Your task to perform on an android device: open device folders in google photos Image 0: 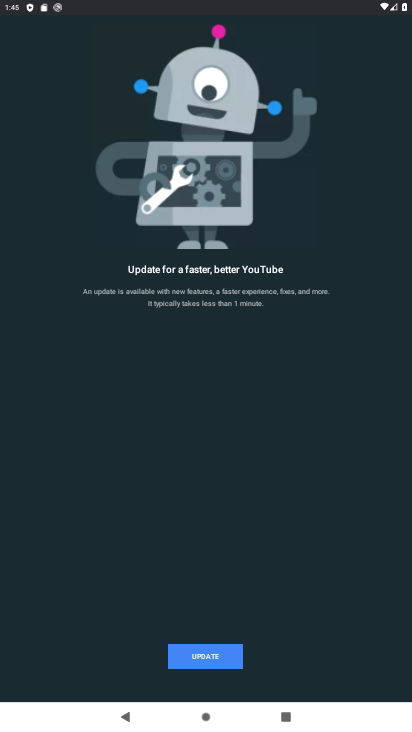
Step 0: press home button
Your task to perform on an android device: open device folders in google photos Image 1: 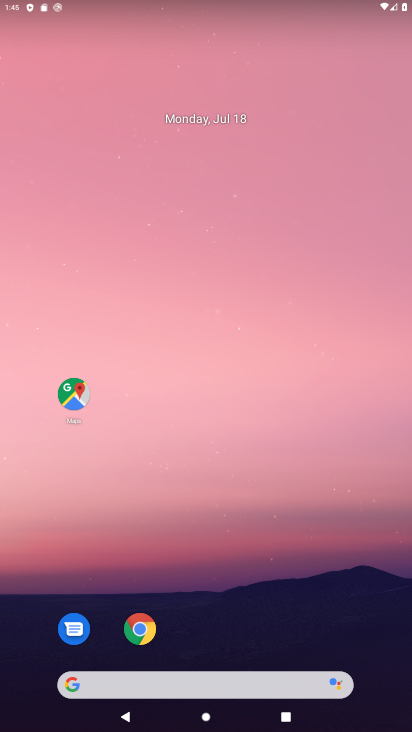
Step 1: drag from (235, 313) to (247, 221)
Your task to perform on an android device: open device folders in google photos Image 2: 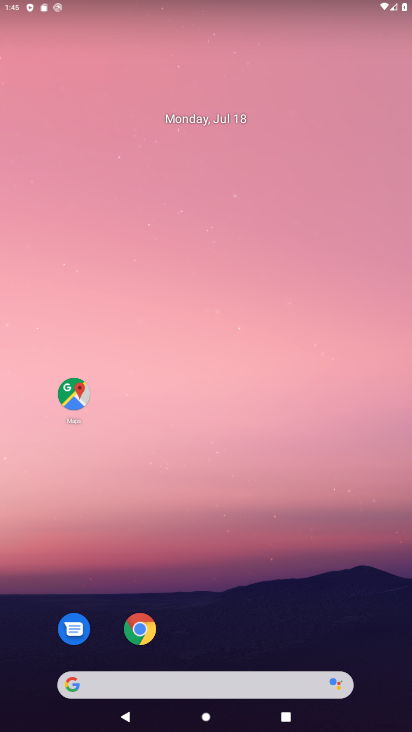
Step 2: drag from (207, 629) to (226, 199)
Your task to perform on an android device: open device folders in google photos Image 3: 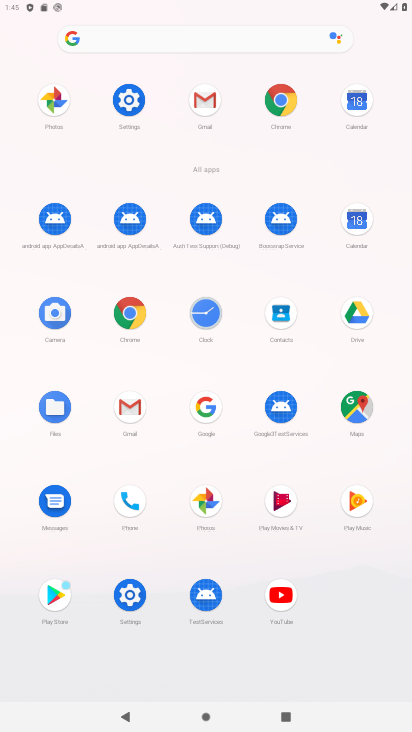
Step 3: click (205, 513)
Your task to perform on an android device: open device folders in google photos Image 4: 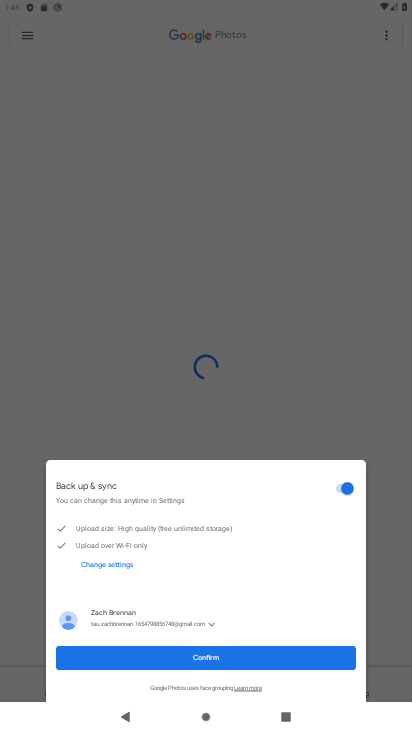
Step 4: click (200, 644)
Your task to perform on an android device: open device folders in google photos Image 5: 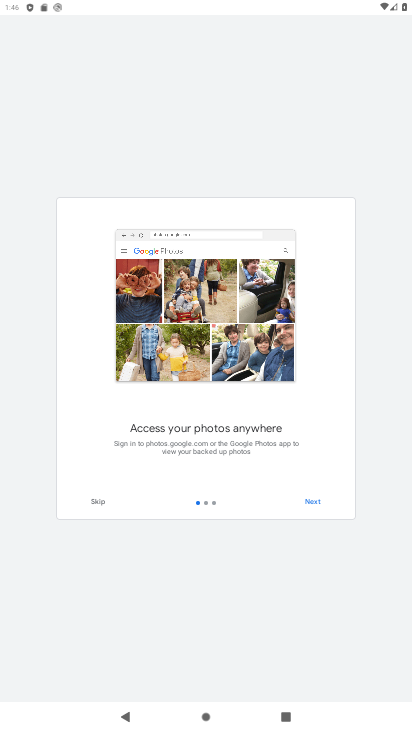
Step 5: click (306, 497)
Your task to perform on an android device: open device folders in google photos Image 6: 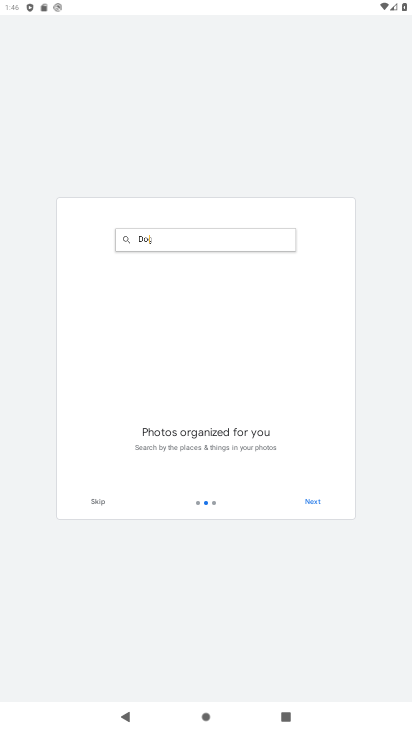
Step 6: click (306, 497)
Your task to perform on an android device: open device folders in google photos Image 7: 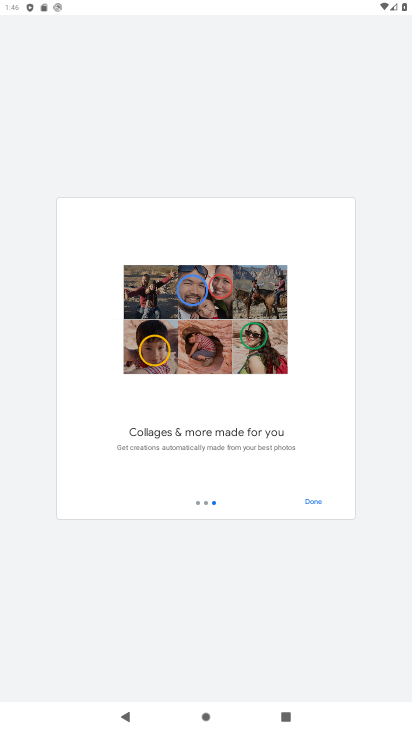
Step 7: click (316, 507)
Your task to perform on an android device: open device folders in google photos Image 8: 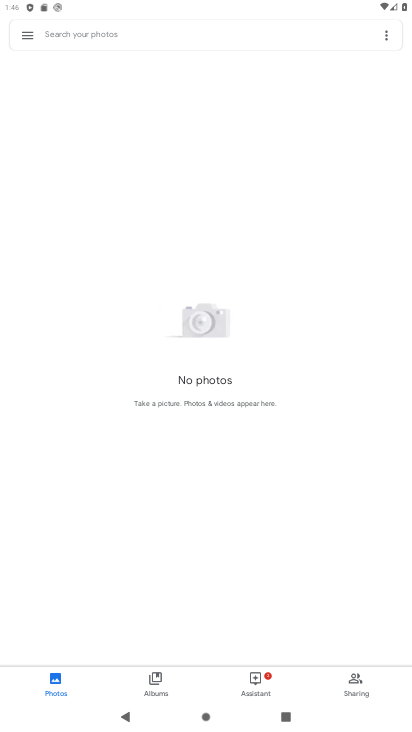
Step 8: click (22, 41)
Your task to perform on an android device: open device folders in google photos Image 9: 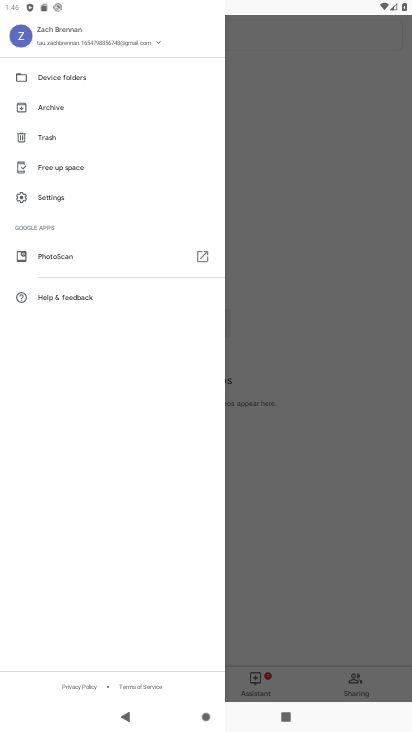
Step 9: click (115, 82)
Your task to perform on an android device: open device folders in google photos Image 10: 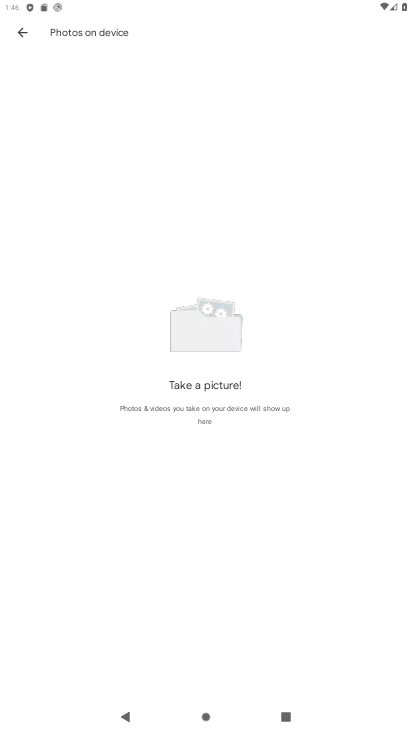
Step 10: task complete